Your task to perform on an android device: move a message to another label in the gmail app Image 0: 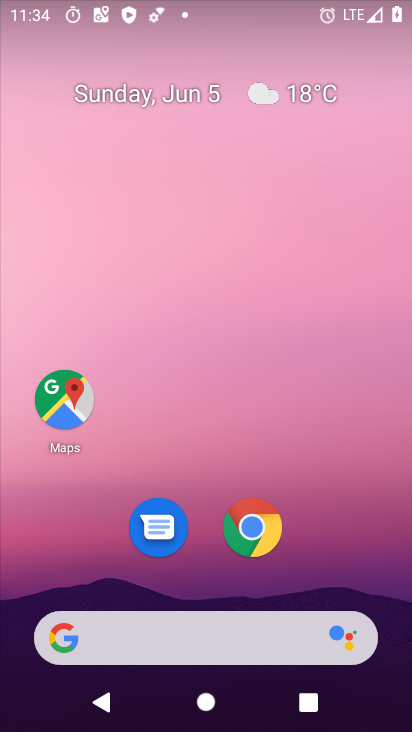
Step 0: drag from (343, 559) to (200, 101)
Your task to perform on an android device: move a message to another label in the gmail app Image 1: 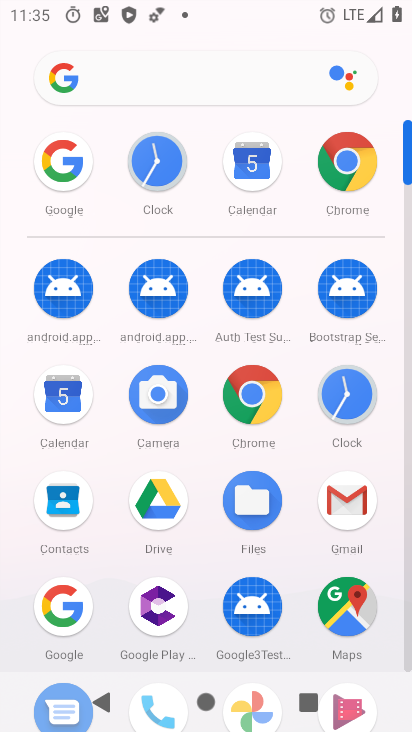
Step 1: click (344, 521)
Your task to perform on an android device: move a message to another label in the gmail app Image 2: 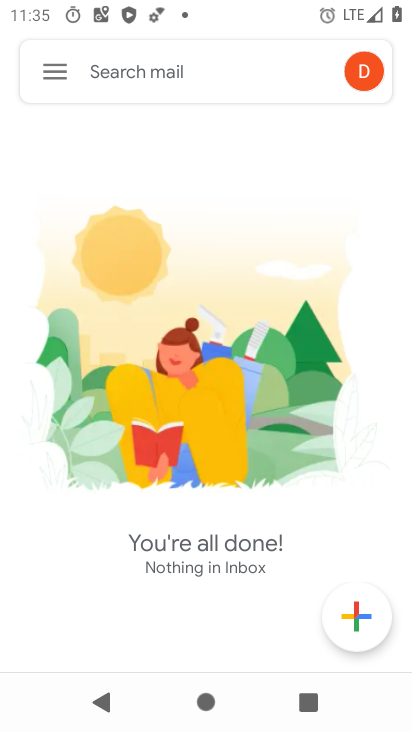
Step 2: task complete